Your task to perform on an android device: Open the calendar and show me this week's events Image 0: 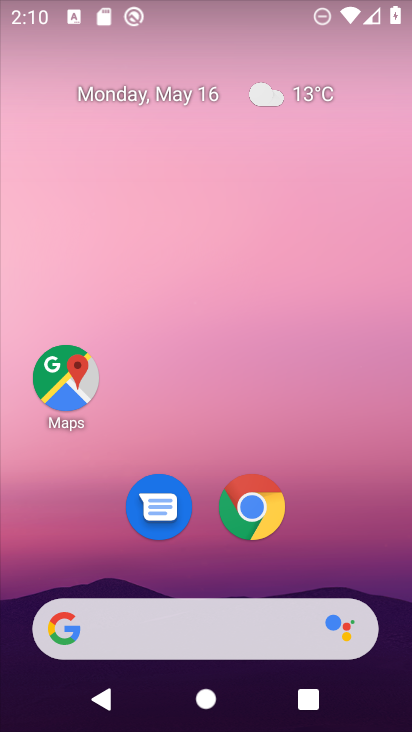
Step 0: drag from (199, 592) to (175, 292)
Your task to perform on an android device: Open the calendar and show me this week's events Image 1: 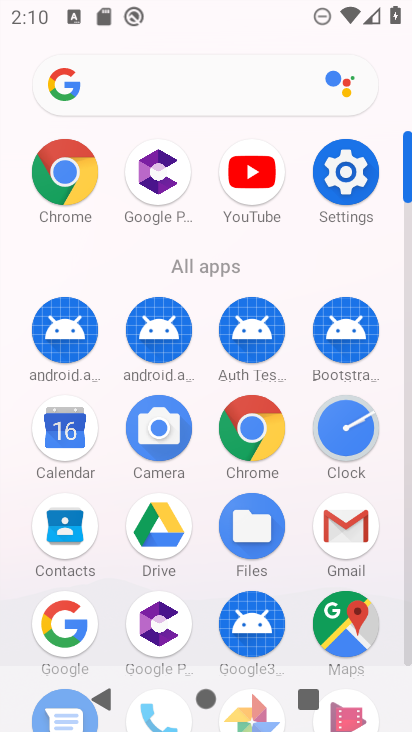
Step 1: click (77, 456)
Your task to perform on an android device: Open the calendar and show me this week's events Image 2: 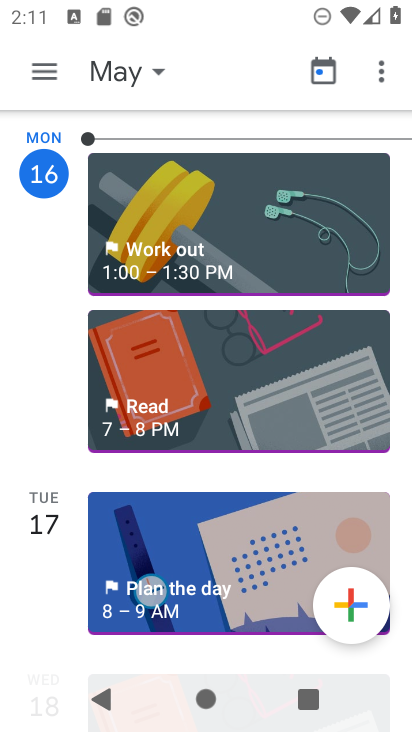
Step 2: click (51, 76)
Your task to perform on an android device: Open the calendar and show me this week's events Image 3: 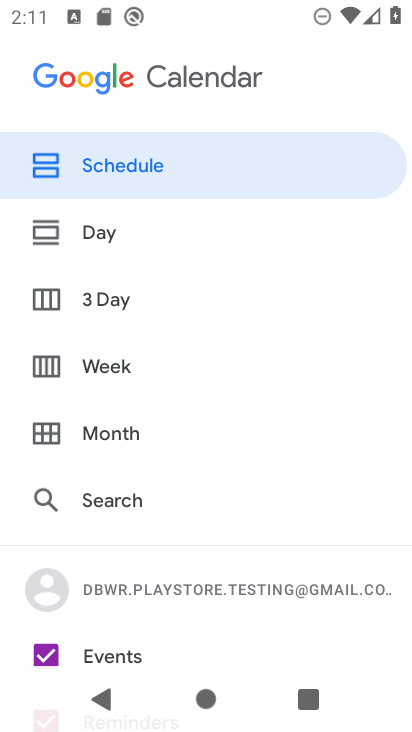
Step 3: click (94, 377)
Your task to perform on an android device: Open the calendar and show me this week's events Image 4: 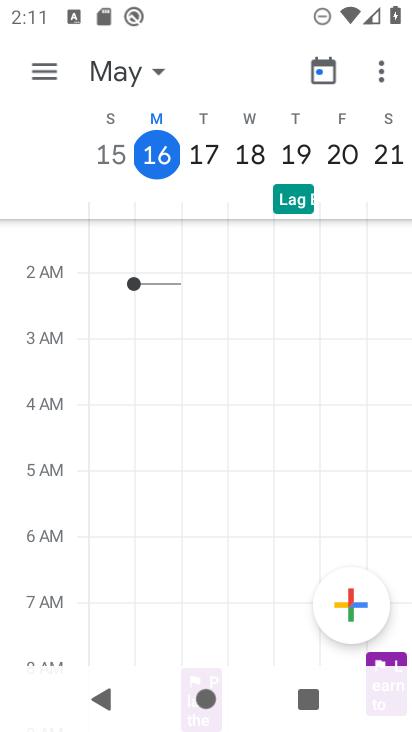
Step 4: task complete